Your task to perform on an android device: Open privacy settings Image 0: 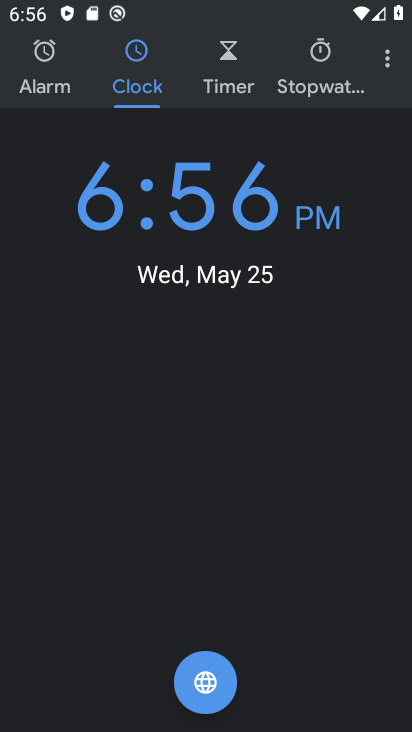
Step 0: press back button
Your task to perform on an android device: Open privacy settings Image 1: 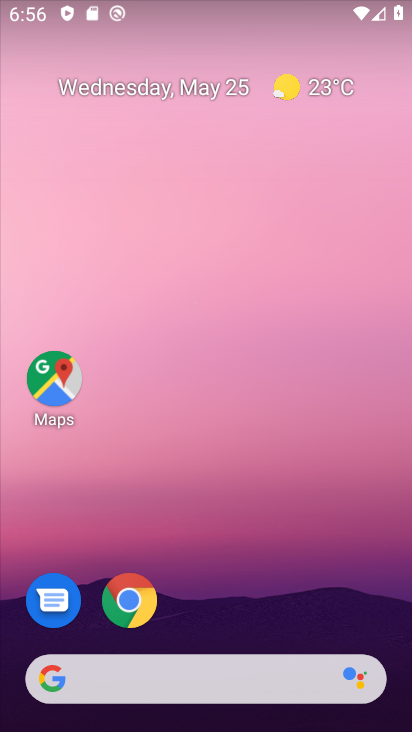
Step 1: drag from (252, 582) to (179, 75)
Your task to perform on an android device: Open privacy settings Image 2: 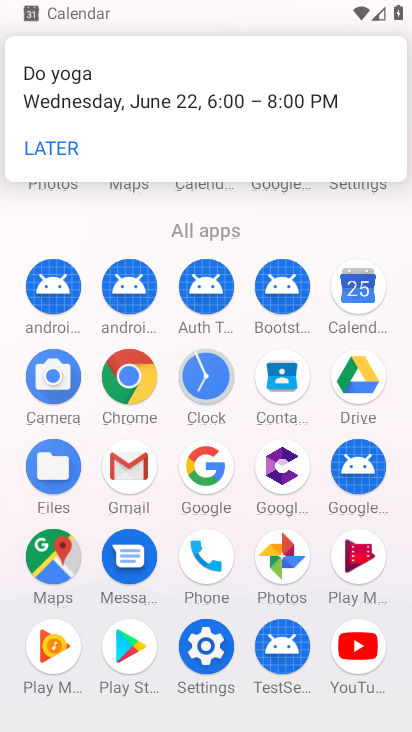
Step 2: click (207, 645)
Your task to perform on an android device: Open privacy settings Image 3: 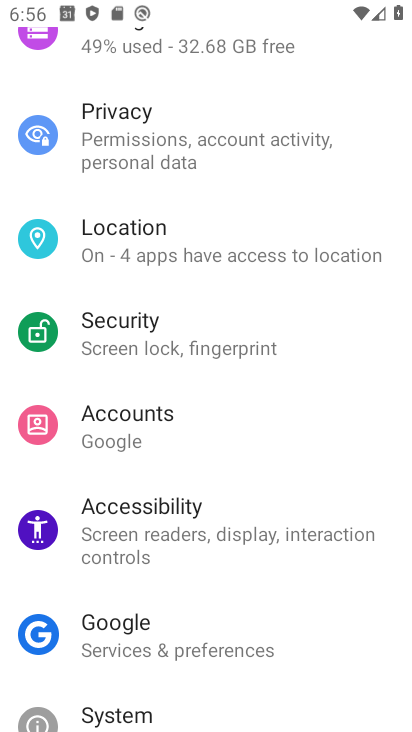
Step 3: click (140, 123)
Your task to perform on an android device: Open privacy settings Image 4: 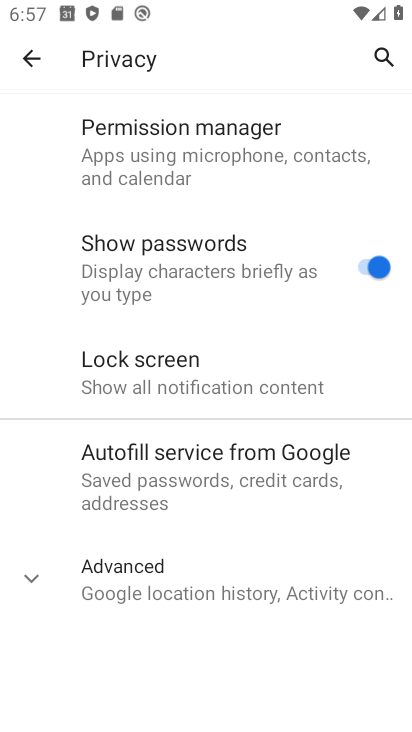
Step 4: task complete